Your task to perform on an android device: move a message to another label in the gmail app Image 0: 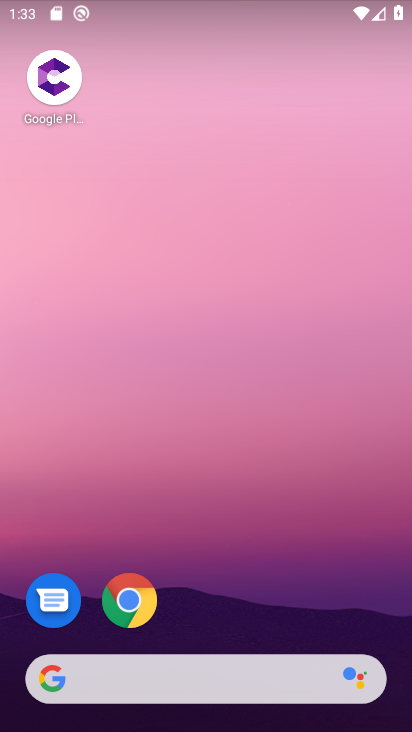
Step 0: drag from (207, 525) to (222, 3)
Your task to perform on an android device: move a message to another label in the gmail app Image 1: 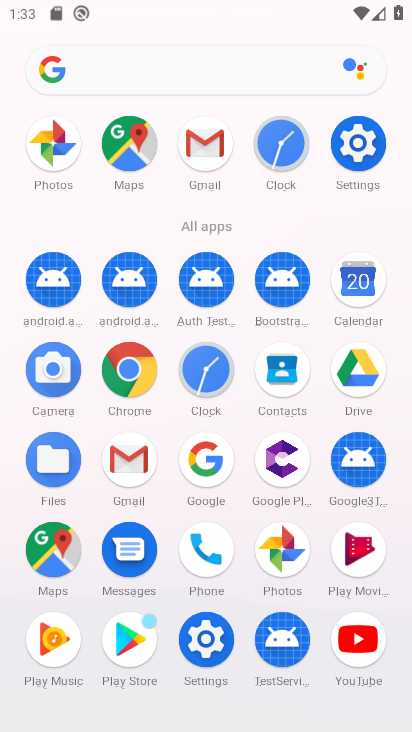
Step 1: click (127, 453)
Your task to perform on an android device: move a message to another label in the gmail app Image 2: 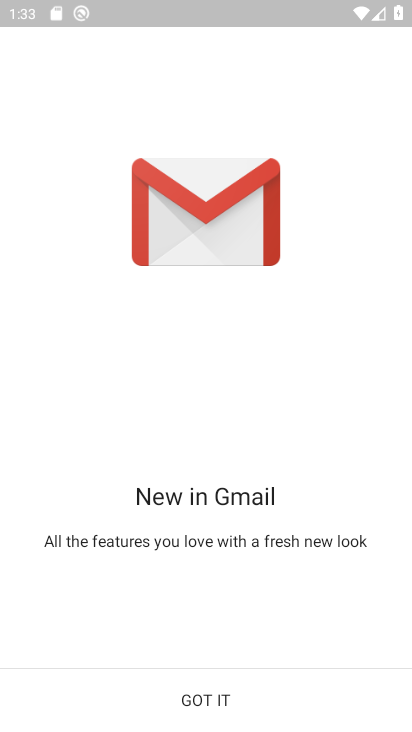
Step 2: click (264, 698)
Your task to perform on an android device: move a message to another label in the gmail app Image 3: 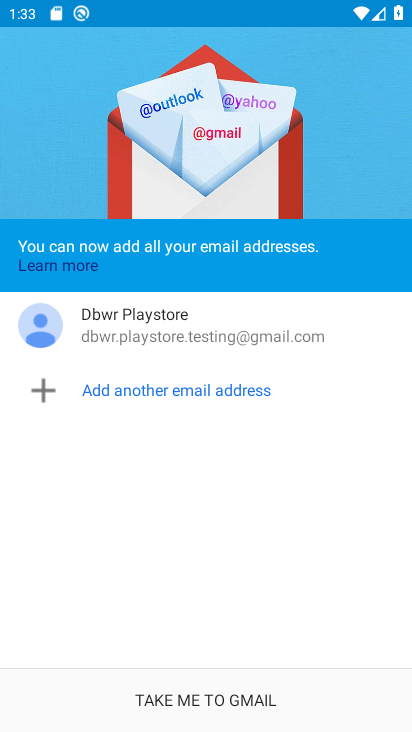
Step 3: click (263, 700)
Your task to perform on an android device: move a message to another label in the gmail app Image 4: 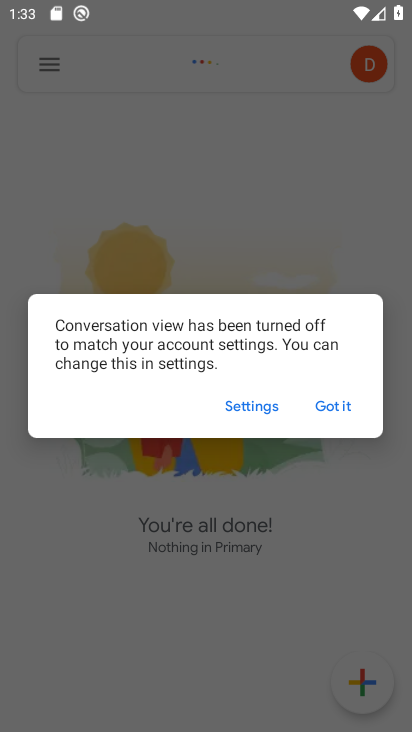
Step 4: click (322, 403)
Your task to perform on an android device: move a message to another label in the gmail app Image 5: 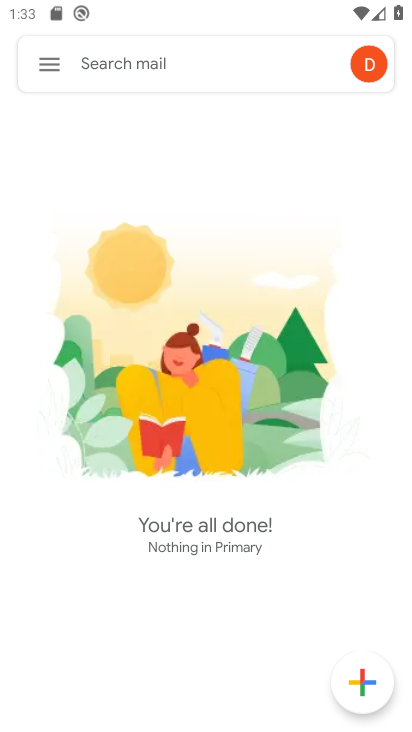
Step 5: click (46, 54)
Your task to perform on an android device: move a message to another label in the gmail app Image 6: 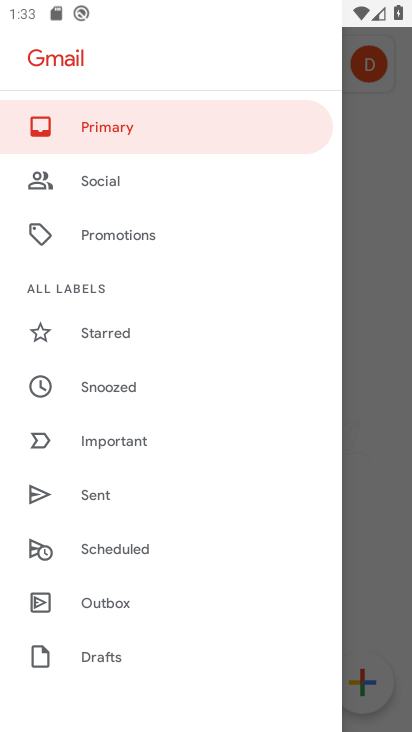
Step 6: drag from (122, 577) to (173, 345)
Your task to perform on an android device: move a message to another label in the gmail app Image 7: 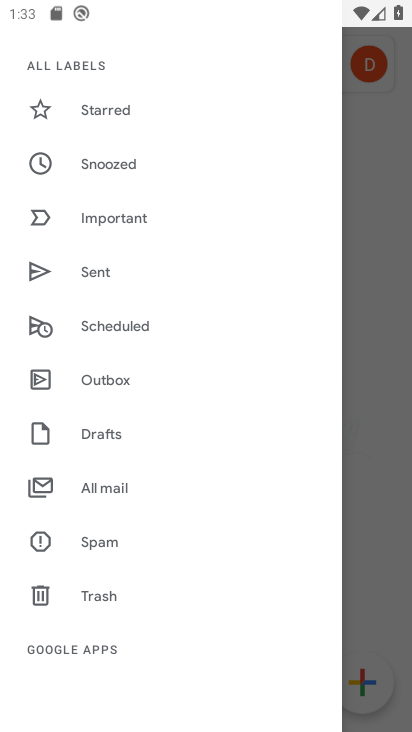
Step 7: click (129, 487)
Your task to perform on an android device: move a message to another label in the gmail app Image 8: 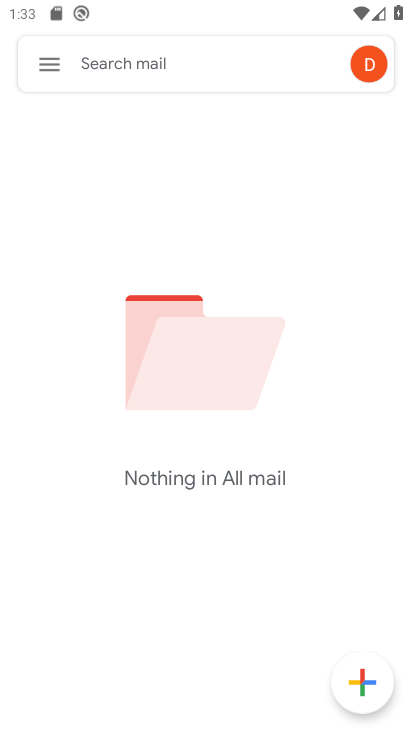
Step 8: task complete